Your task to perform on an android device: turn pop-ups off in chrome Image 0: 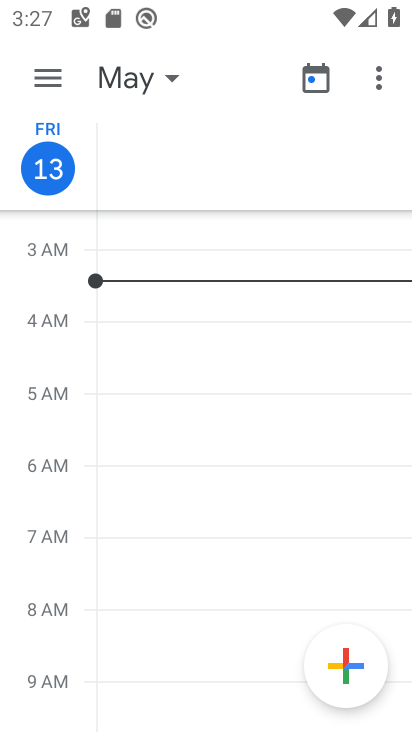
Step 0: press back button
Your task to perform on an android device: turn pop-ups off in chrome Image 1: 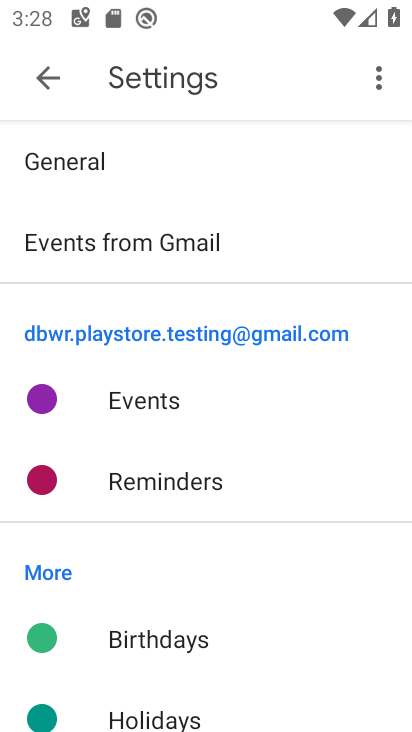
Step 1: press home button
Your task to perform on an android device: turn pop-ups off in chrome Image 2: 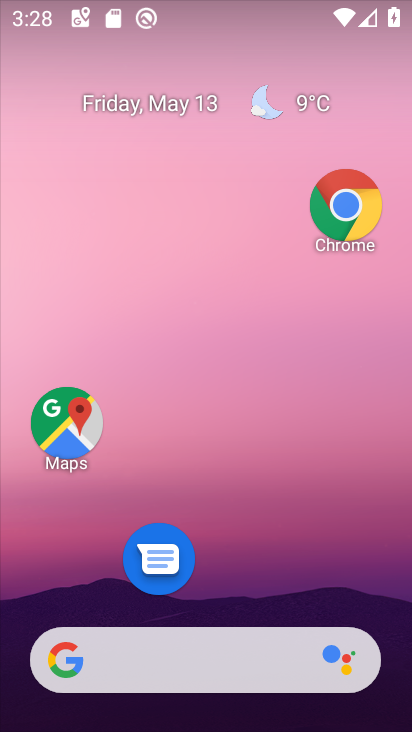
Step 2: click (352, 206)
Your task to perform on an android device: turn pop-ups off in chrome Image 3: 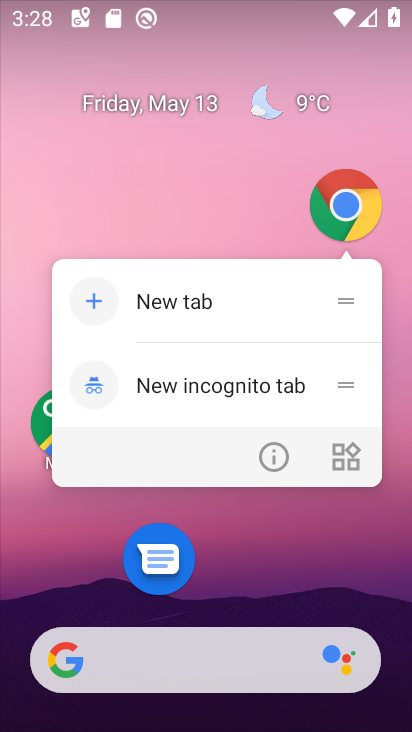
Step 3: click (344, 213)
Your task to perform on an android device: turn pop-ups off in chrome Image 4: 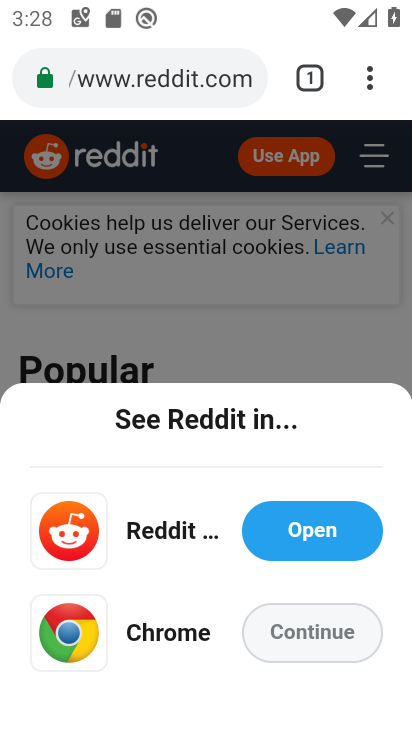
Step 4: drag from (376, 76) to (83, 617)
Your task to perform on an android device: turn pop-ups off in chrome Image 5: 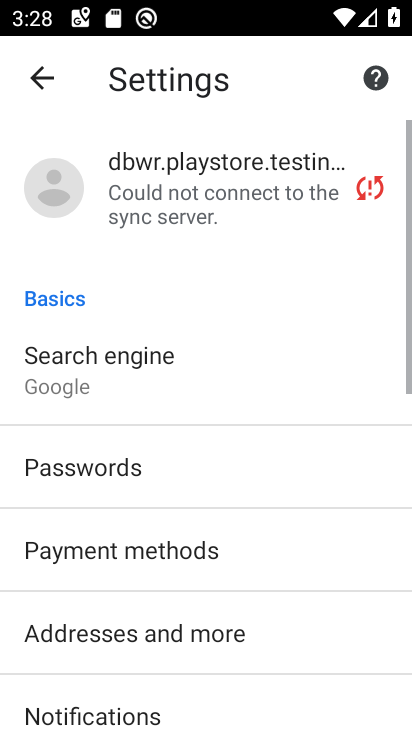
Step 5: drag from (114, 604) to (229, 56)
Your task to perform on an android device: turn pop-ups off in chrome Image 6: 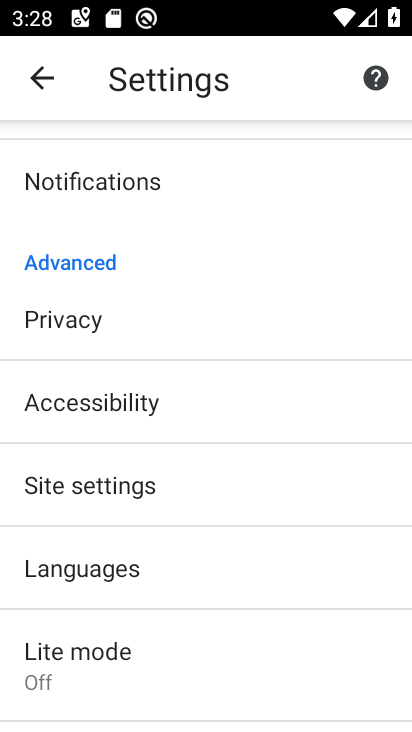
Step 6: click (114, 501)
Your task to perform on an android device: turn pop-ups off in chrome Image 7: 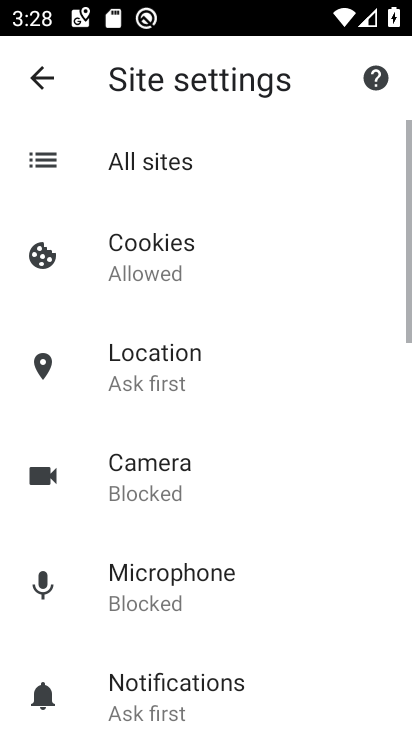
Step 7: drag from (201, 600) to (272, 146)
Your task to perform on an android device: turn pop-ups off in chrome Image 8: 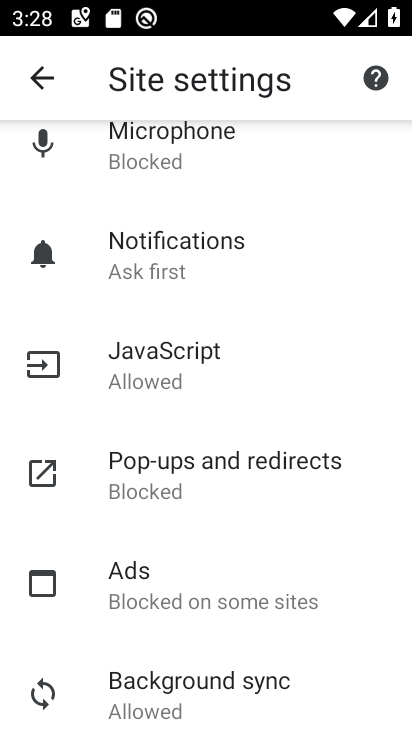
Step 8: click (174, 444)
Your task to perform on an android device: turn pop-ups off in chrome Image 9: 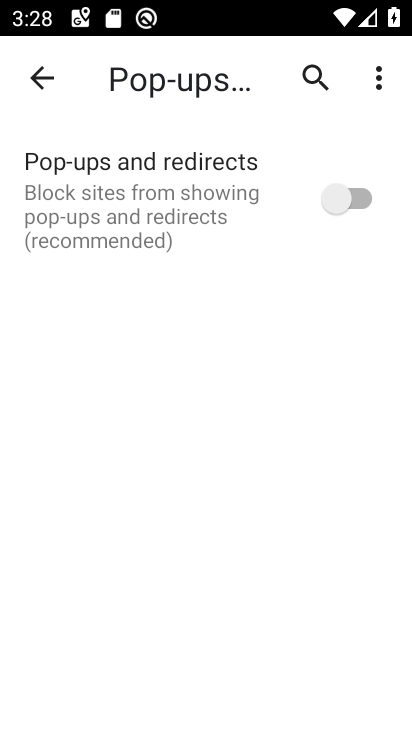
Step 9: task complete